Your task to perform on an android device: see creations saved in the google photos Image 0: 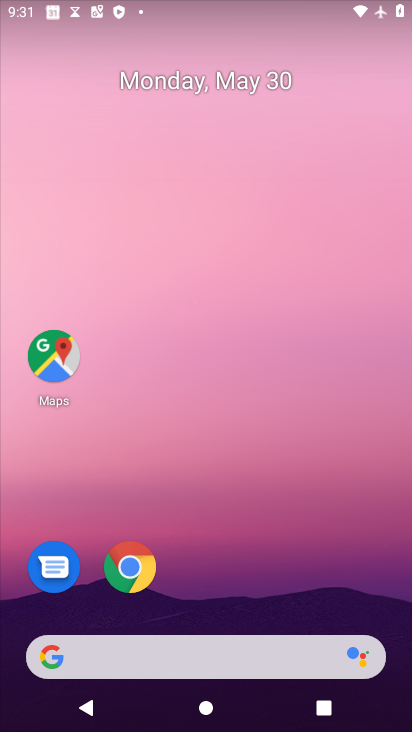
Step 0: drag from (247, 596) to (281, 194)
Your task to perform on an android device: see creations saved in the google photos Image 1: 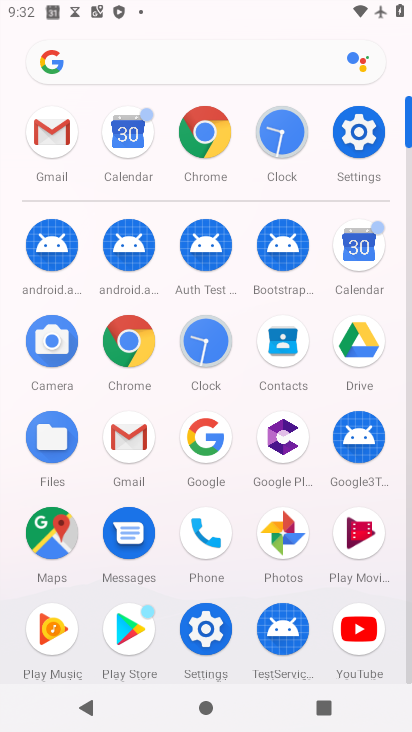
Step 1: click (289, 533)
Your task to perform on an android device: see creations saved in the google photos Image 2: 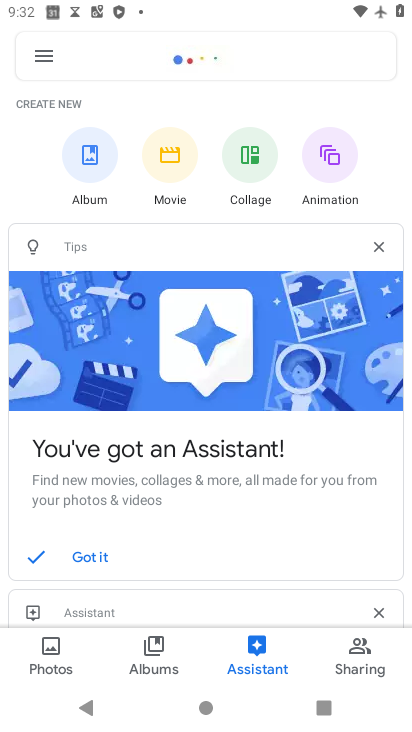
Step 2: click (171, 66)
Your task to perform on an android device: see creations saved in the google photos Image 3: 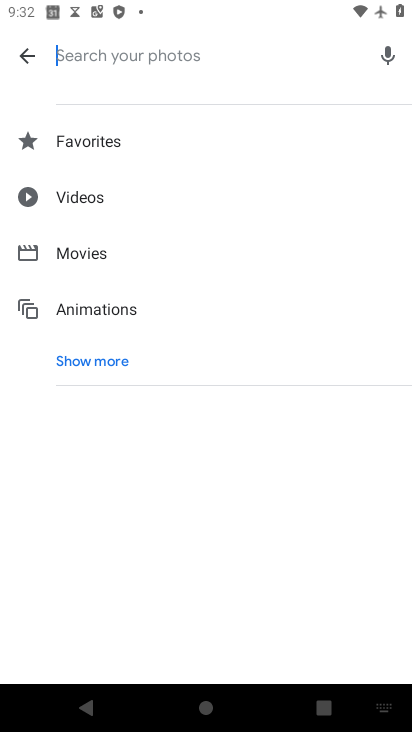
Step 3: click (83, 370)
Your task to perform on an android device: see creations saved in the google photos Image 4: 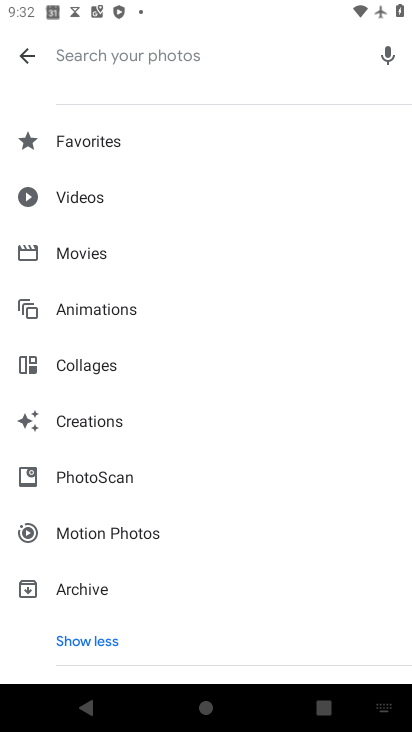
Step 4: click (86, 422)
Your task to perform on an android device: see creations saved in the google photos Image 5: 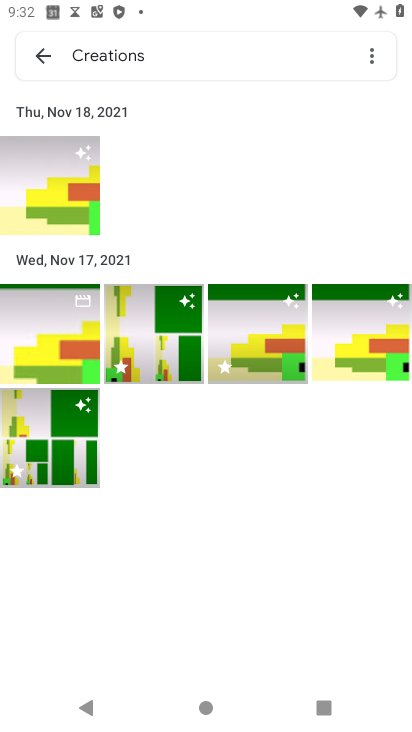
Step 5: task complete